Your task to perform on an android device: Go to Maps Image 0: 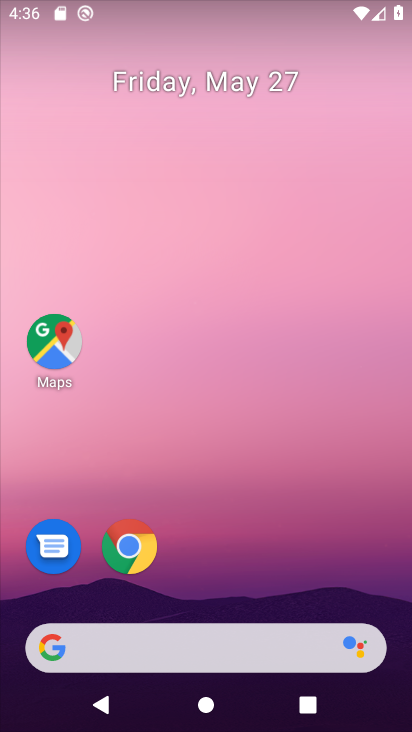
Step 0: drag from (276, 518) to (223, 8)
Your task to perform on an android device: Go to Maps Image 1: 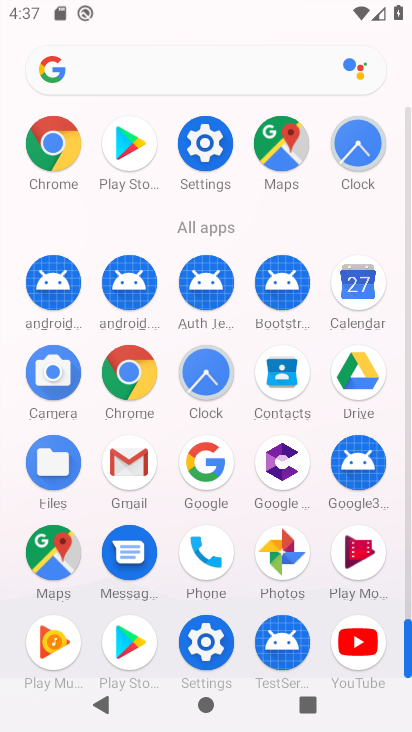
Step 1: drag from (7, 579) to (0, 284)
Your task to perform on an android device: Go to Maps Image 2: 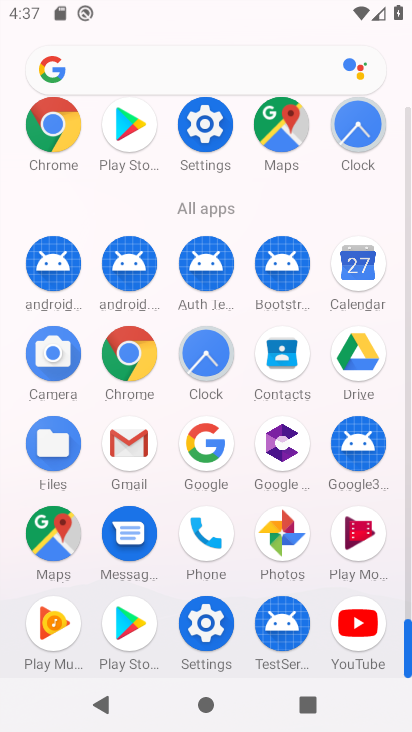
Step 2: click (286, 113)
Your task to perform on an android device: Go to Maps Image 3: 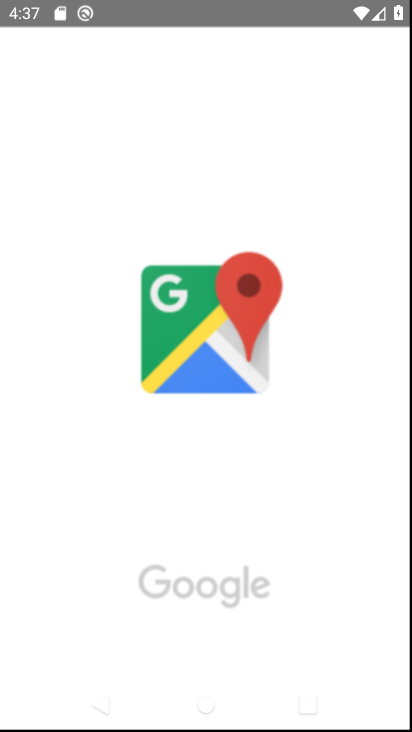
Step 3: task complete